Your task to perform on an android device: Add "razer nari" to the cart on bestbuy.com, then select checkout. Image 0: 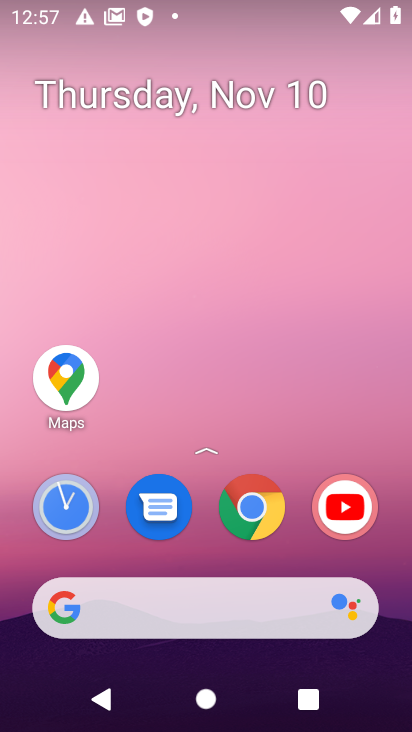
Step 0: click (264, 486)
Your task to perform on an android device: Add "razer nari" to the cart on bestbuy.com, then select checkout. Image 1: 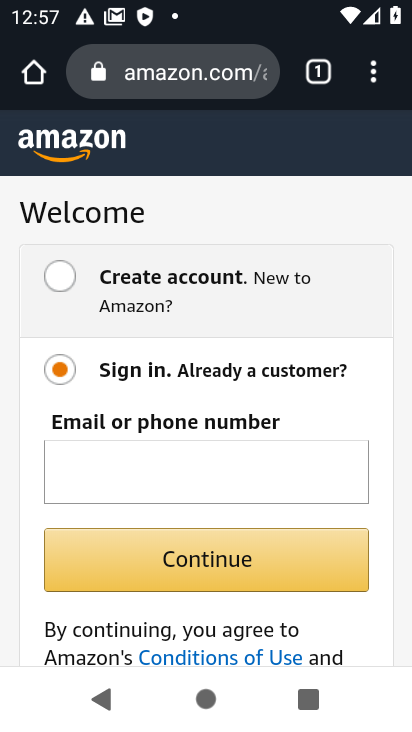
Step 1: click (317, 78)
Your task to perform on an android device: Add "razer nari" to the cart on bestbuy.com, then select checkout. Image 2: 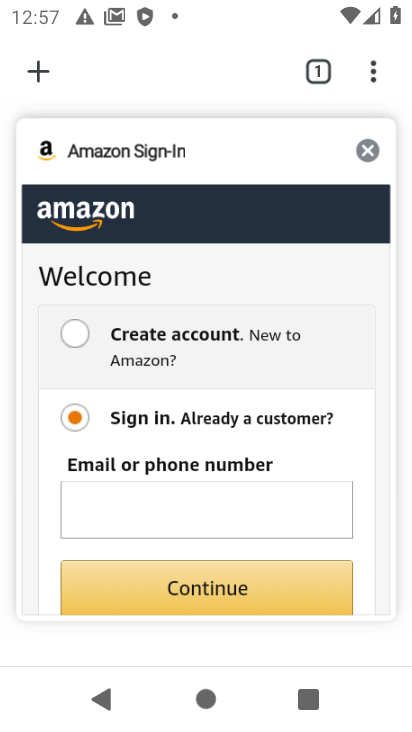
Step 2: click (31, 71)
Your task to perform on an android device: Add "razer nari" to the cart on bestbuy.com, then select checkout. Image 3: 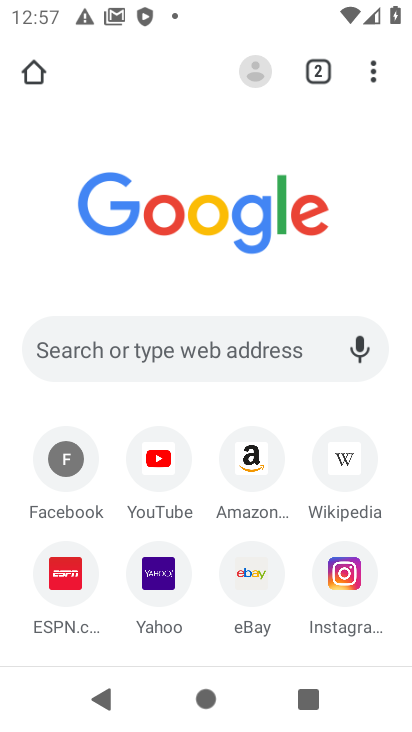
Step 3: click (142, 339)
Your task to perform on an android device: Add "razer nari" to the cart on bestbuy.com, then select checkout. Image 4: 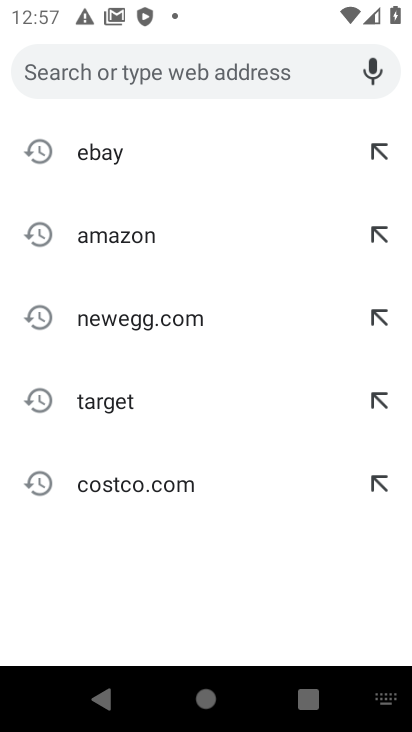
Step 4: type "bestbuy"
Your task to perform on an android device: Add "razer nari" to the cart on bestbuy.com, then select checkout. Image 5: 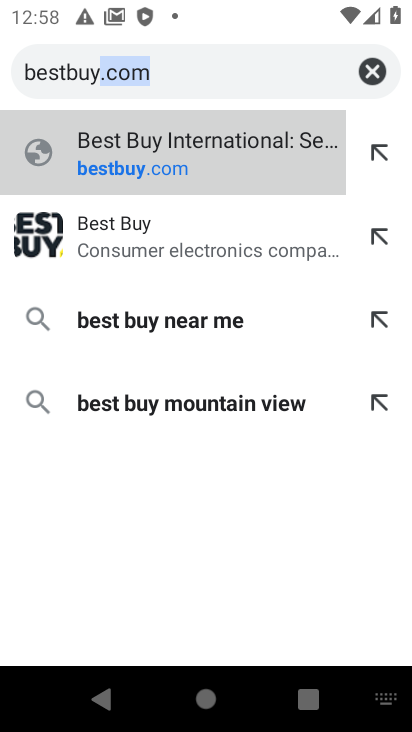
Step 5: click (244, 158)
Your task to perform on an android device: Add "razer nari" to the cart on bestbuy.com, then select checkout. Image 6: 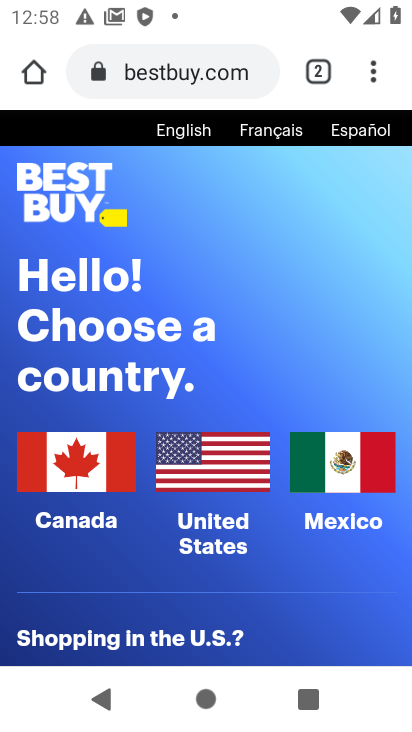
Step 6: click (170, 437)
Your task to perform on an android device: Add "razer nari" to the cart on bestbuy.com, then select checkout. Image 7: 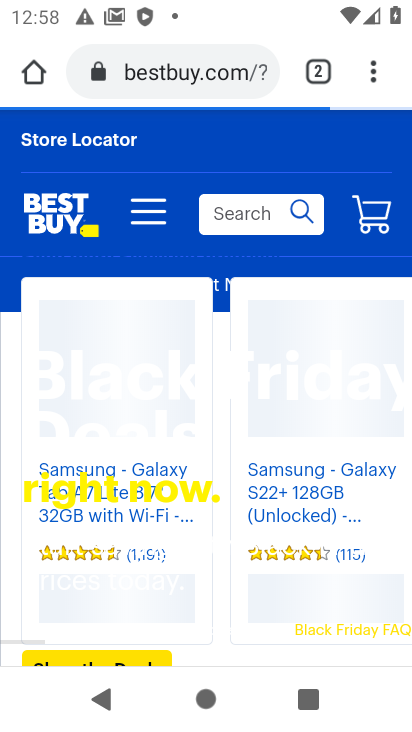
Step 7: click (250, 203)
Your task to perform on an android device: Add "razer nari" to the cart on bestbuy.com, then select checkout. Image 8: 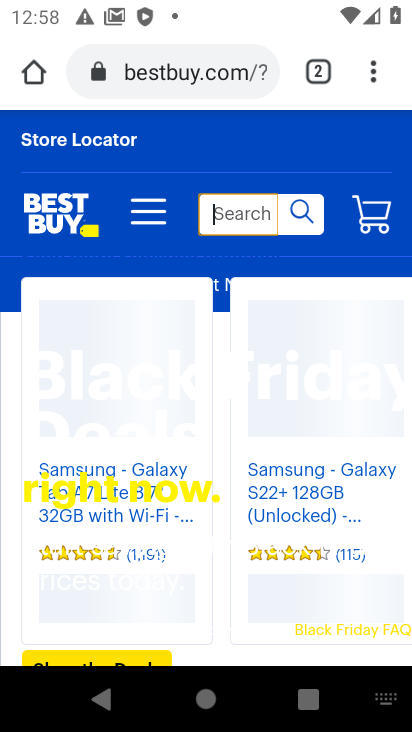
Step 8: type "razer nari"
Your task to perform on an android device: Add "razer nari" to the cart on bestbuy.com, then select checkout. Image 9: 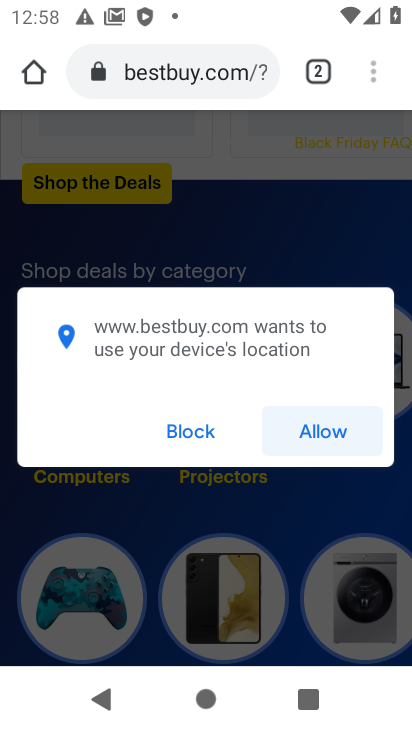
Step 9: click (180, 432)
Your task to perform on an android device: Add "razer nari" to the cart on bestbuy.com, then select checkout. Image 10: 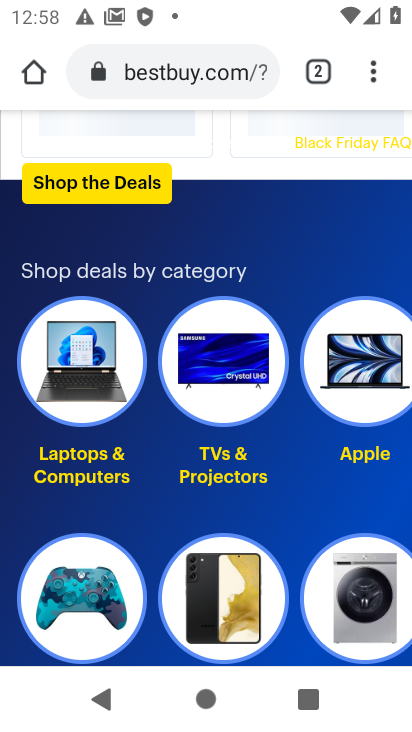
Step 10: drag from (284, 196) to (257, 456)
Your task to perform on an android device: Add "razer nari" to the cart on bestbuy.com, then select checkout. Image 11: 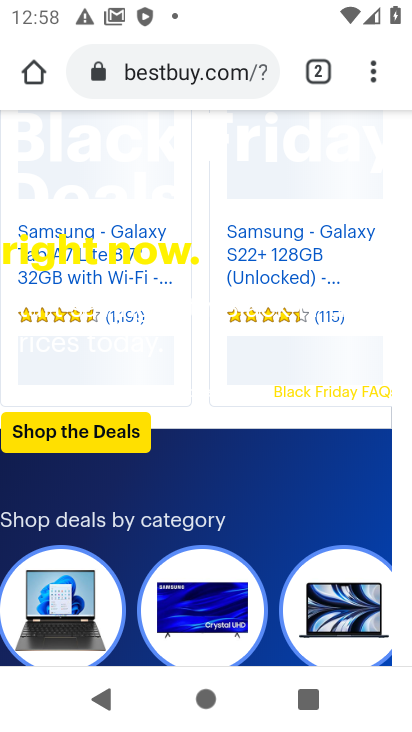
Step 11: drag from (218, 394) to (98, 626)
Your task to perform on an android device: Add "razer nari" to the cart on bestbuy.com, then select checkout. Image 12: 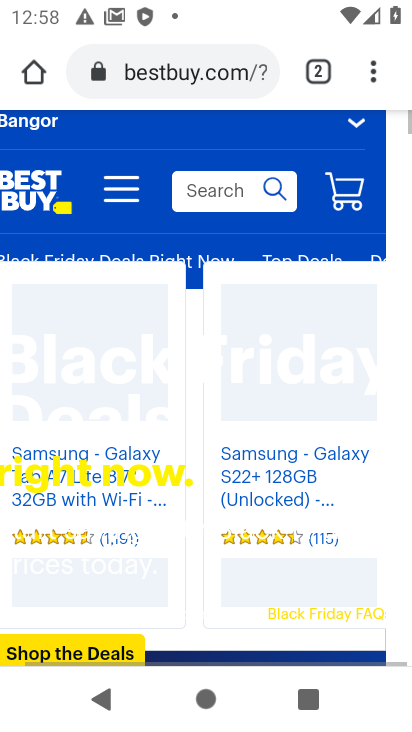
Step 12: click (198, 136)
Your task to perform on an android device: Add "razer nari" to the cart on bestbuy.com, then select checkout. Image 13: 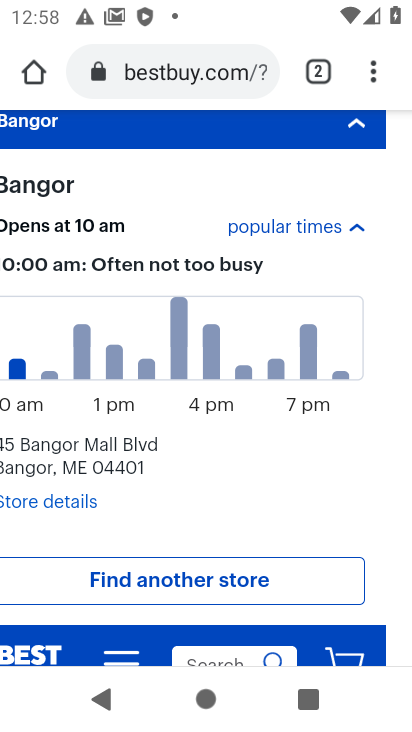
Step 13: click (237, 655)
Your task to perform on an android device: Add "razer nari" to the cart on bestbuy.com, then select checkout. Image 14: 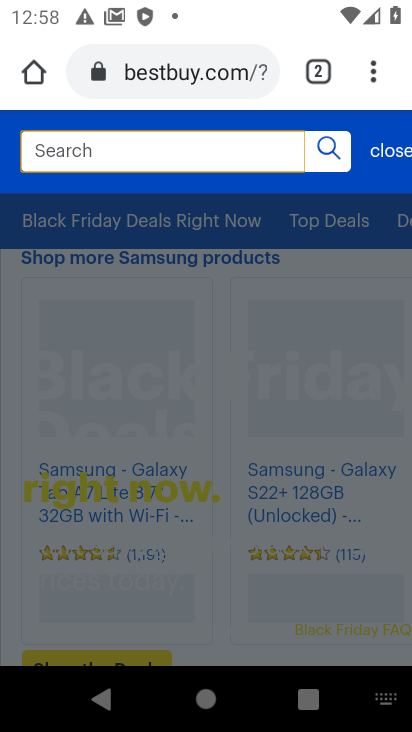
Step 14: type "razer nari"
Your task to perform on an android device: Add "razer nari" to the cart on bestbuy.com, then select checkout. Image 15: 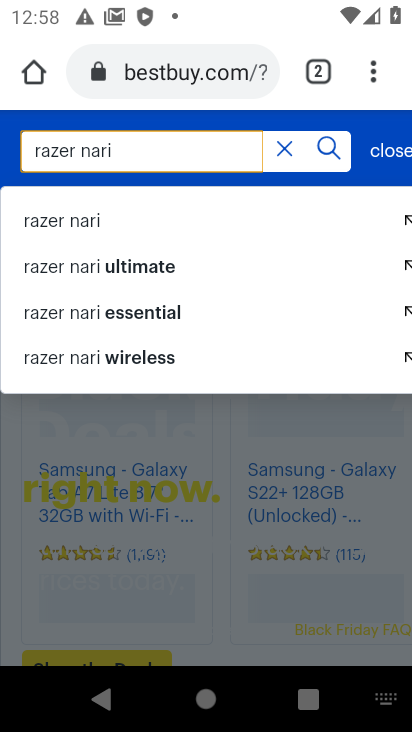
Step 15: click (88, 266)
Your task to perform on an android device: Add "razer nari" to the cart on bestbuy.com, then select checkout. Image 16: 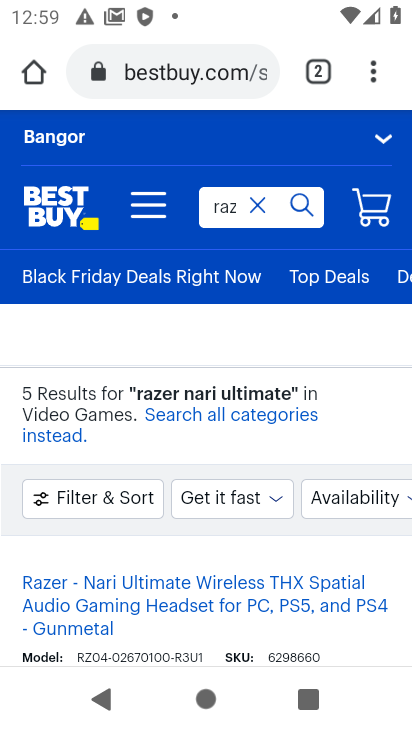
Step 16: click (88, 531)
Your task to perform on an android device: Add "razer nari" to the cart on bestbuy.com, then select checkout. Image 17: 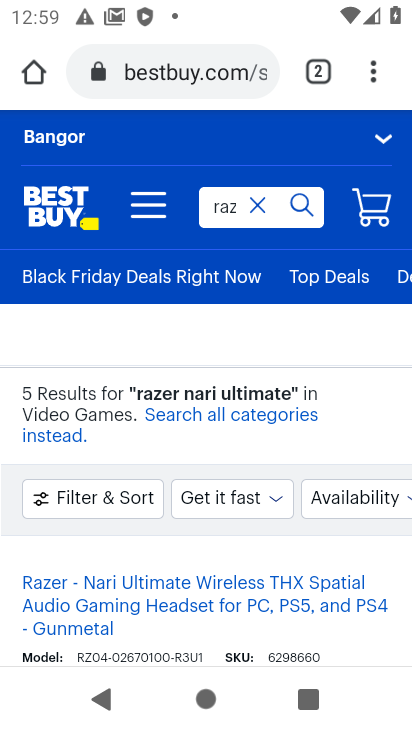
Step 17: drag from (88, 531) to (128, 178)
Your task to perform on an android device: Add "razer nari" to the cart on bestbuy.com, then select checkout. Image 18: 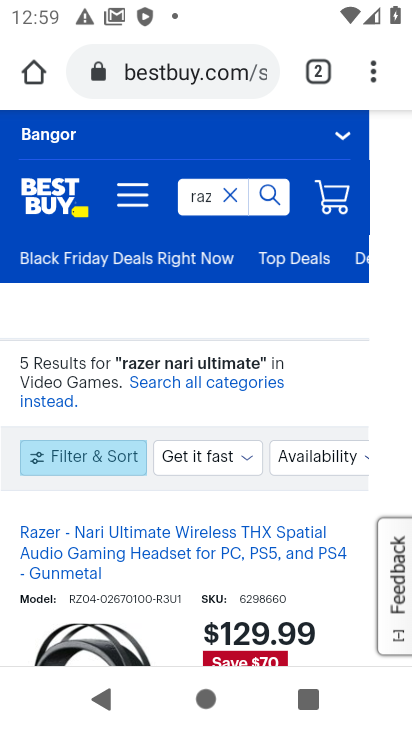
Step 18: drag from (271, 504) to (315, 123)
Your task to perform on an android device: Add "razer nari" to the cart on bestbuy.com, then select checkout. Image 19: 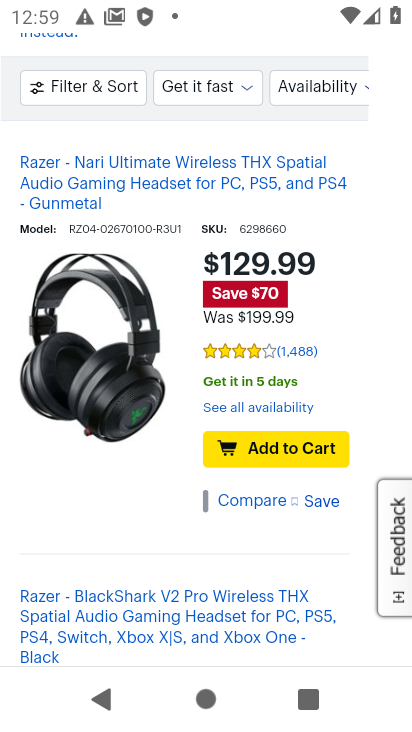
Step 19: click (274, 443)
Your task to perform on an android device: Add "razer nari" to the cart on bestbuy.com, then select checkout. Image 20: 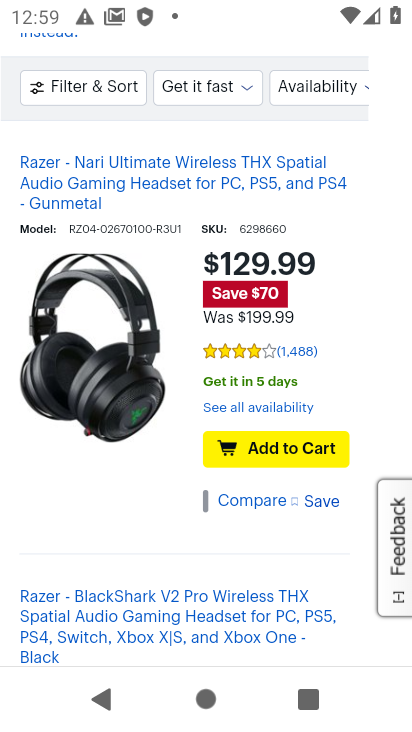
Step 20: click (262, 508)
Your task to perform on an android device: Add "razer nari" to the cart on bestbuy.com, then select checkout. Image 21: 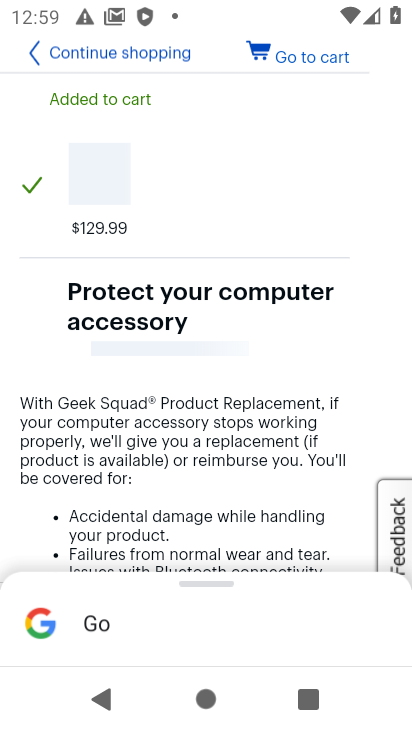
Step 21: click (338, 192)
Your task to perform on an android device: Add "razer nari" to the cart on bestbuy.com, then select checkout. Image 22: 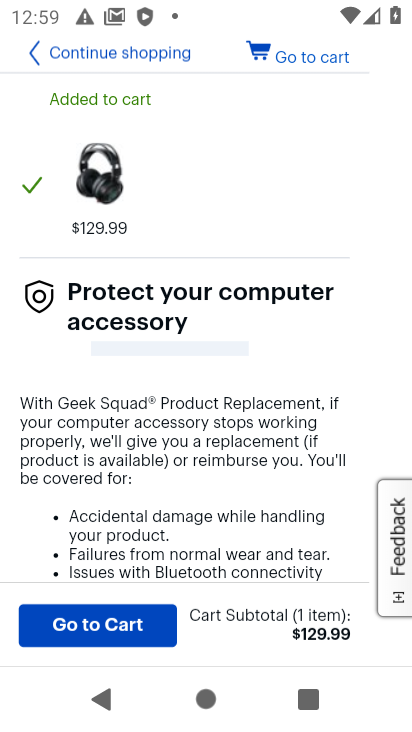
Step 22: click (316, 59)
Your task to perform on an android device: Add "razer nari" to the cart on bestbuy.com, then select checkout. Image 23: 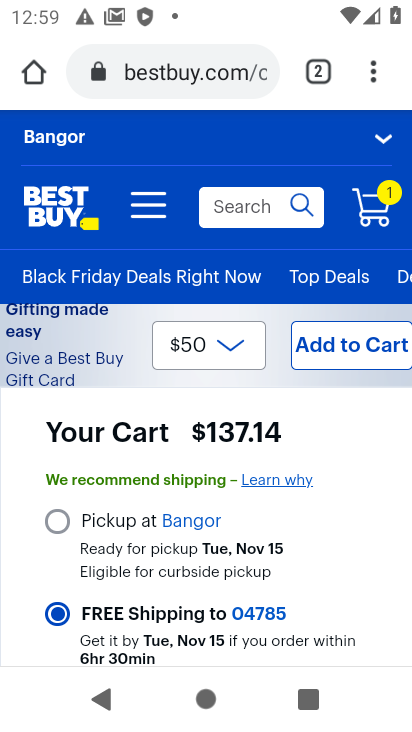
Step 23: drag from (242, 545) to (304, 270)
Your task to perform on an android device: Add "razer nari" to the cart on bestbuy.com, then select checkout. Image 24: 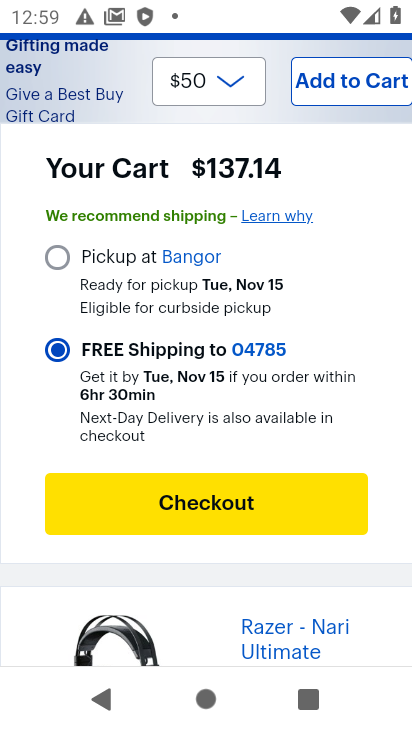
Step 24: click (257, 488)
Your task to perform on an android device: Add "razer nari" to the cart on bestbuy.com, then select checkout. Image 25: 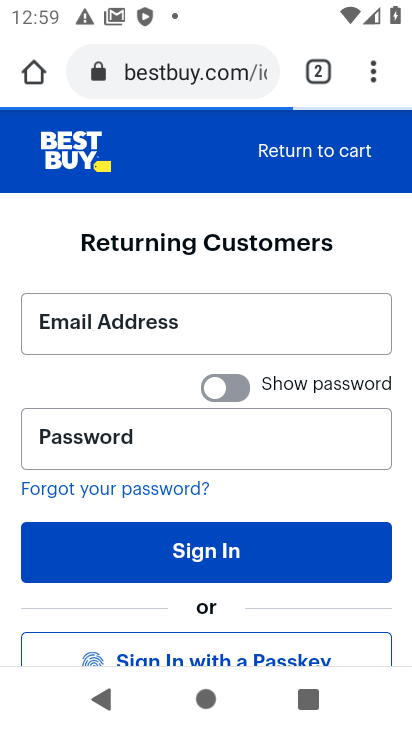
Step 25: task complete